Your task to perform on an android device: turn on sleep mode Image 0: 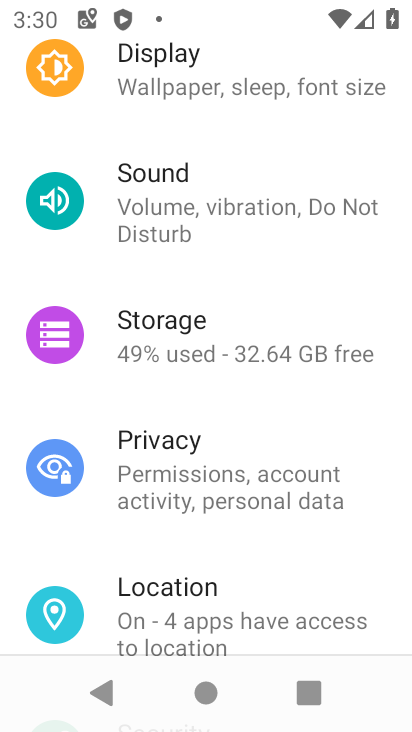
Step 0: click (246, 87)
Your task to perform on an android device: turn on sleep mode Image 1: 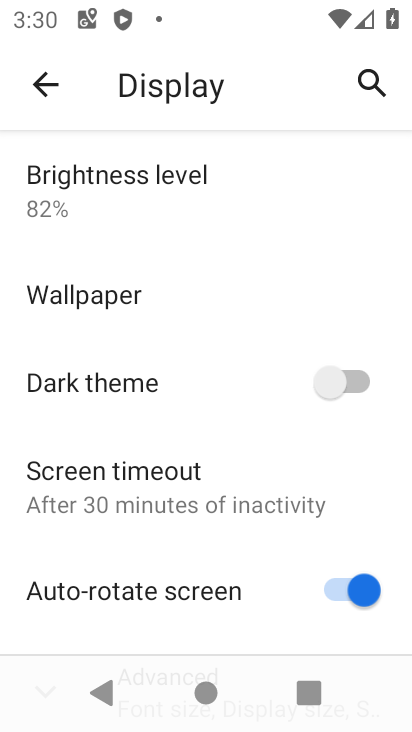
Step 1: drag from (197, 541) to (210, 182)
Your task to perform on an android device: turn on sleep mode Image 2: 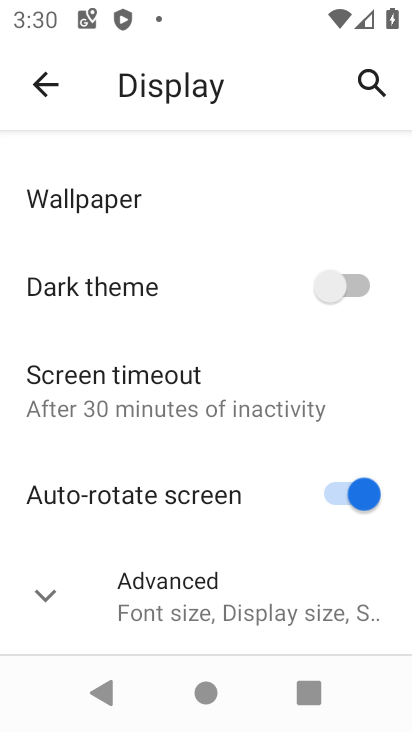
Step 2: click (52, 592)
Your task to perform on an android device: turn on sleep mode Image 3: 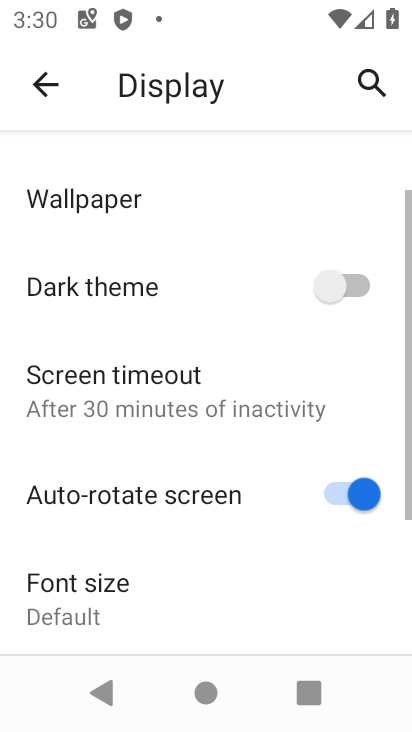
Step 3: task complete